Your task to perform on an android device: What's on my calendar tomorrow? Image 0: 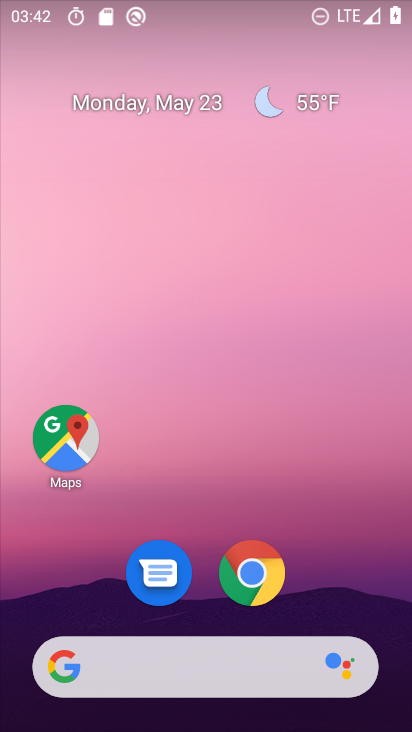
Step 0: click (159, 105)
Your task to perform on an android device: What's on my calendar tomorrow? Image 1: 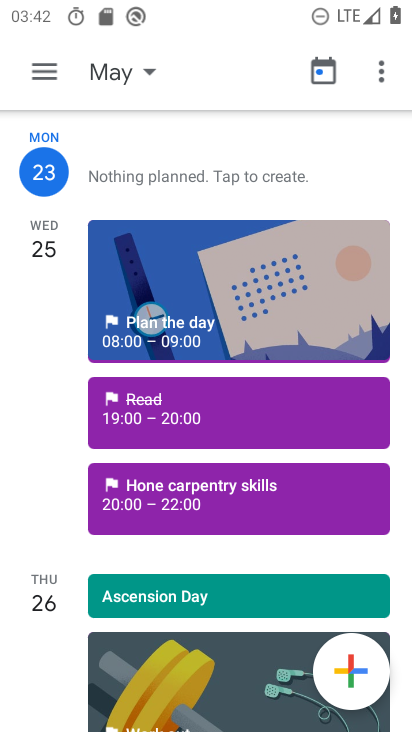
Step 1: click (130, 72)
Your task to perform on an android device: What's on my calendar tomorrow? Image 2: 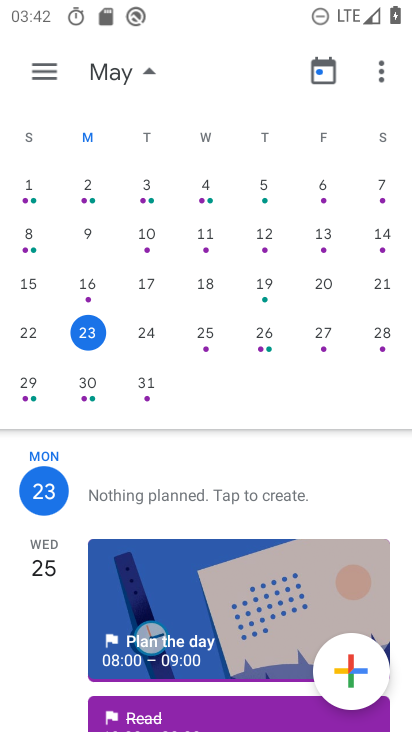
Step 2: click (149, 334)
Your task to perform on an android device: What's on my calendar tomorrow? Image 3: 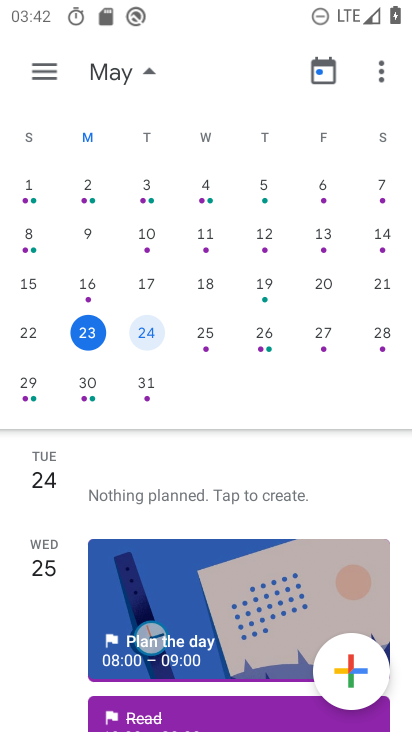
Step 3: task complete